Your task to perform on an android device: turn vacation reply on in the gmail app Image 0: 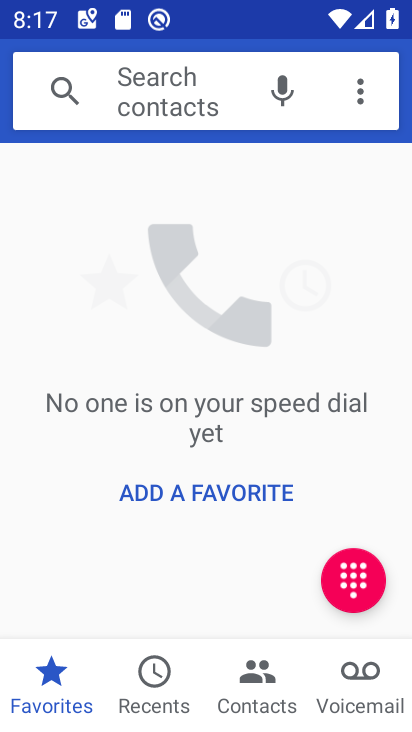
Step 0: press home button
Your task to perform on an android device: turn vacation reply on in the gmail app Image 1: 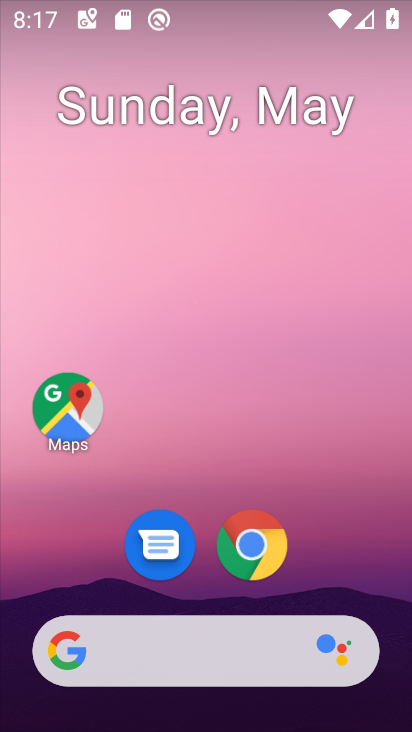
Step 1: drag from (127, 612) to (219, 155)
Your task to perform on an android device: turn vacation reply on in the gmail app Image 2: 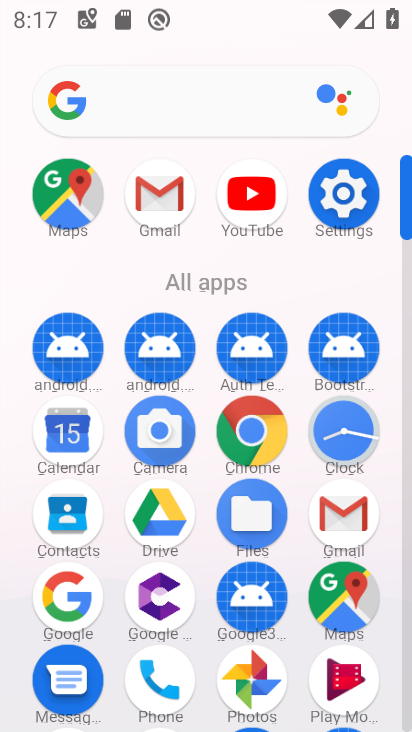
Step 2: click (348, 524)
Your task to perform on an android device: turn vacation reply on in the gmail app Image 3: 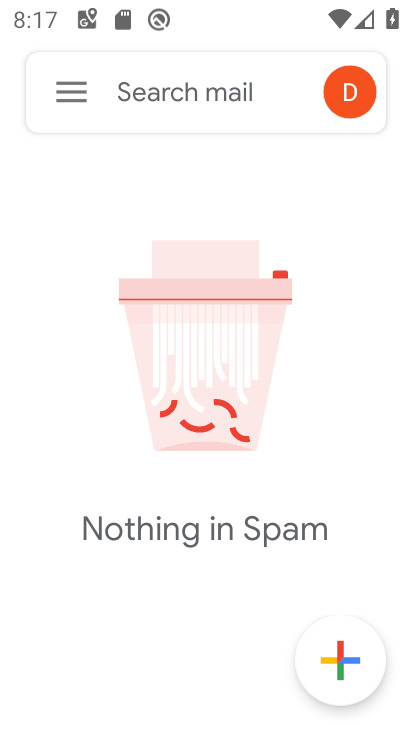
Step 3: click (64, 81)
Your task to perform on an android device: turn vacation reply on in the gmail app Image 4: 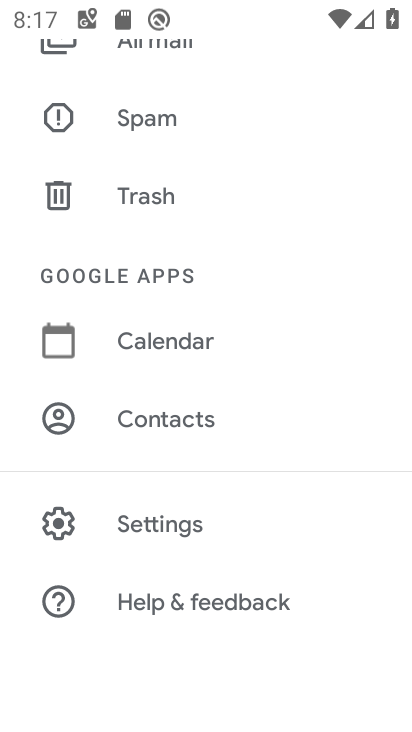
Step 4: click (204, 545)
Your task to perform on an android device: turn vacation reply on in the gmail app Image 5: 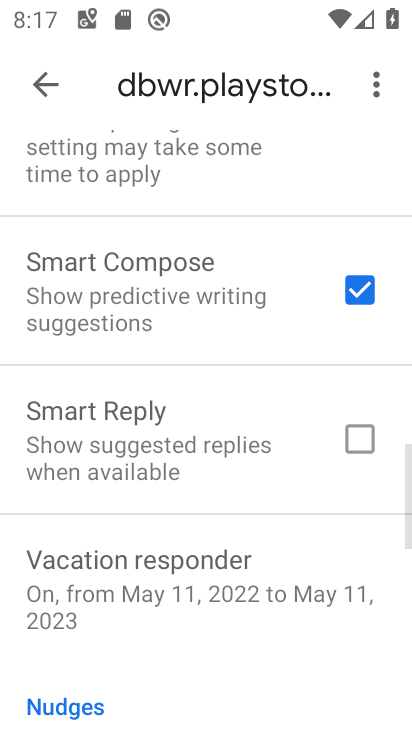
Step 5: click (110, 589)
Your task to perform on an android device: turn vacation reply on in the gmail app Image 6: 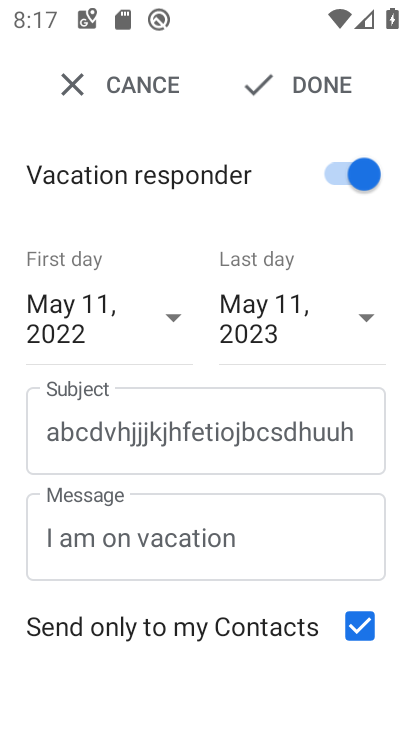
Step 6: task complete